Your task to perform on an android device: turn notification dots off Image 0: 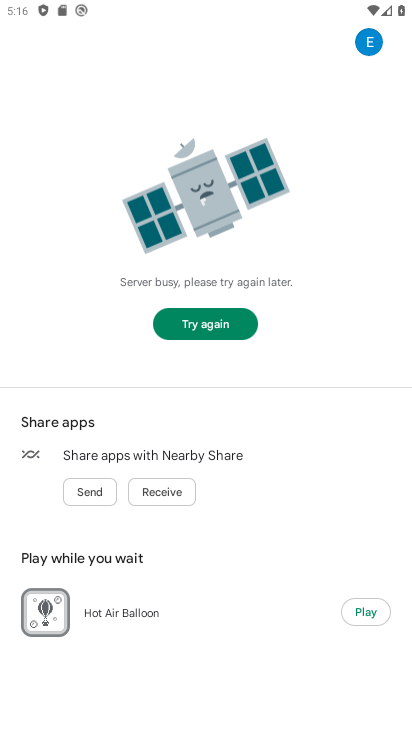
Step 0: press home button
Your task to perform on an android device: turn notification dots off Image 1: 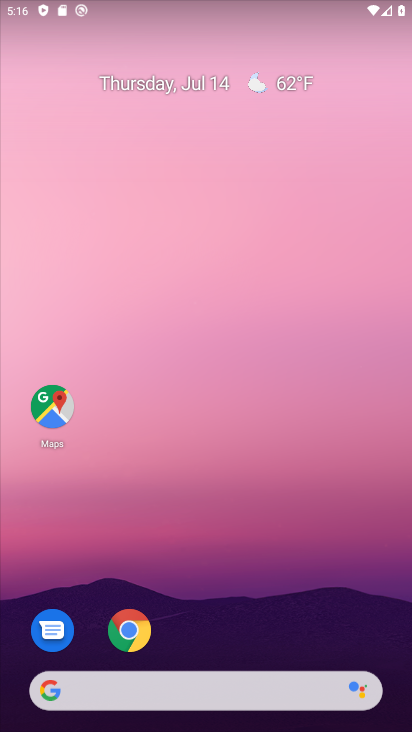
Step 1: drag from (207, 308) to (192, 193)
Your task to perform on an android device: turn notification dots off Image 2: 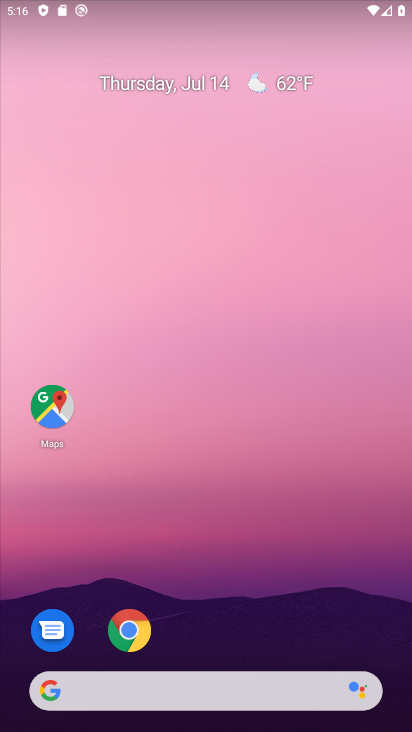
Step 2: drag from (197, 632) to (228, 178)
Your task to perform on an android device: turn notification dots off Image 3: 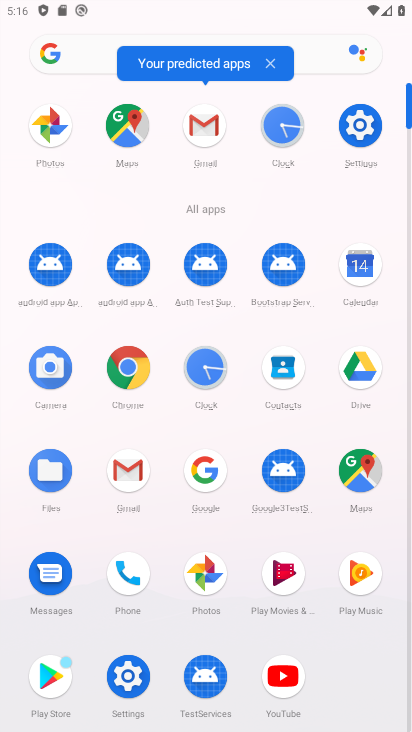
Step 3: click (365, 142)
Your task to perform on an android device: turn notification dots off Image 4: 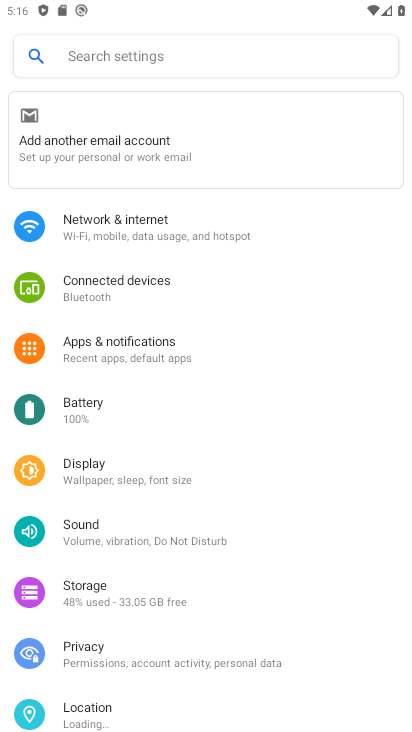
Step 4: click (136, 358)
Your task to perform on an android device: turn notification dots off Image 5: 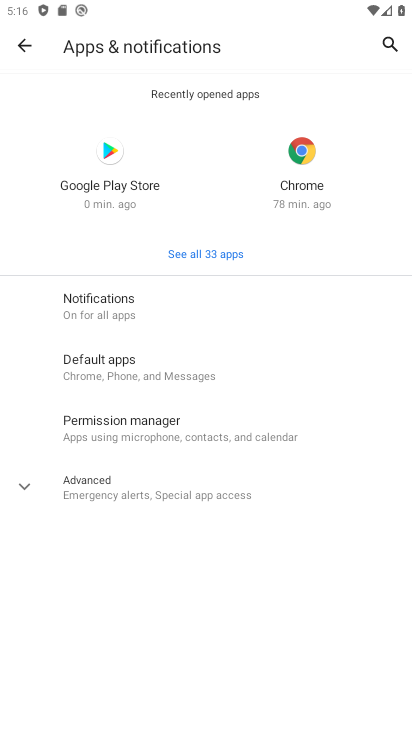
Step 5: click (150, 298)
Your task to perform on an android device: turn notification dots off Image 6: 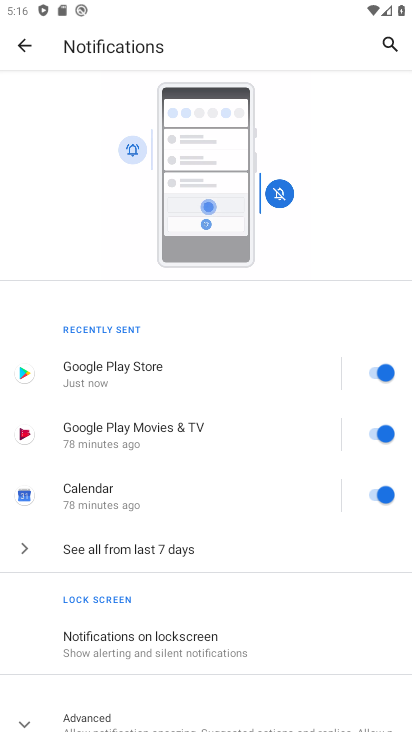
Step 6: drag from (230, 638) to (262, 48)
Your task to perform on an android device: turn notification dots off Image 7: 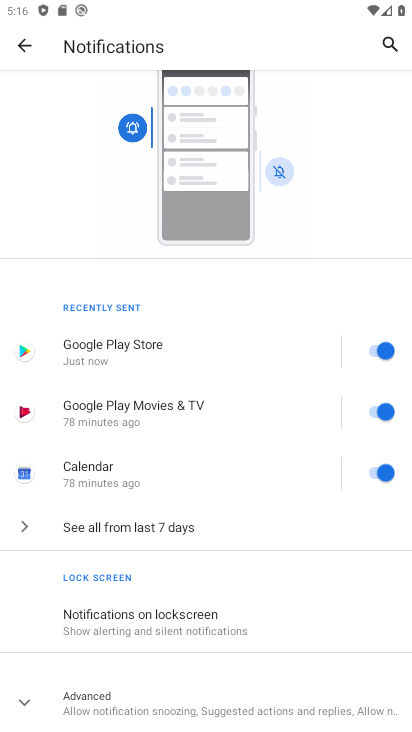
Step 7: drag from (71, 710) to (207, 100)
Your task to perform on an android device: turn notification dots off Image 8: 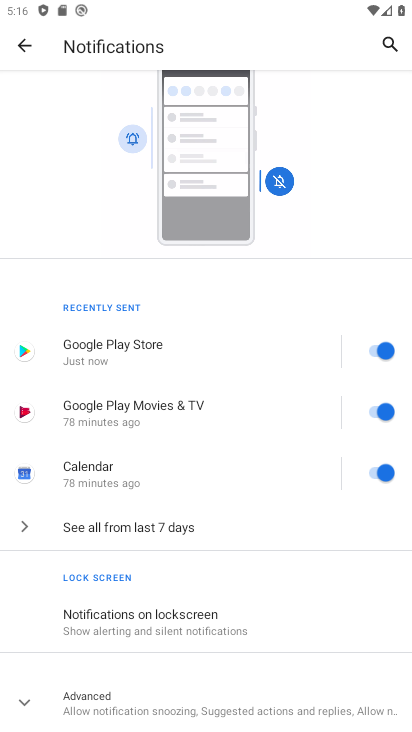
Step 8: click (121, 693)
Your task to perform on an android device: turn notification dots off Image 9: 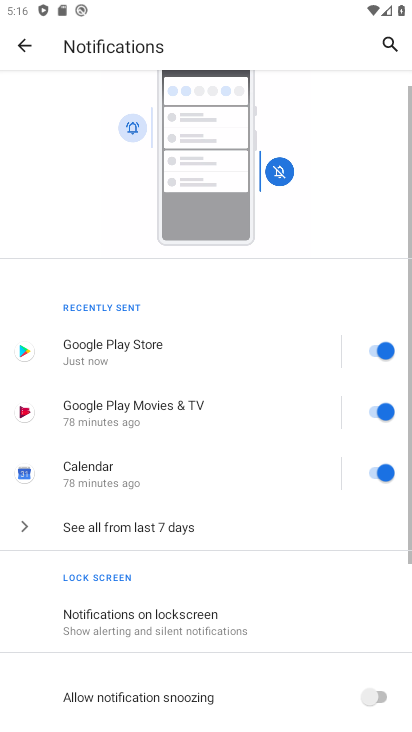
Step 9: drag from (121, 693) to (320, 62)
Your task to perform on an android device: turn notification dots off Image 10: 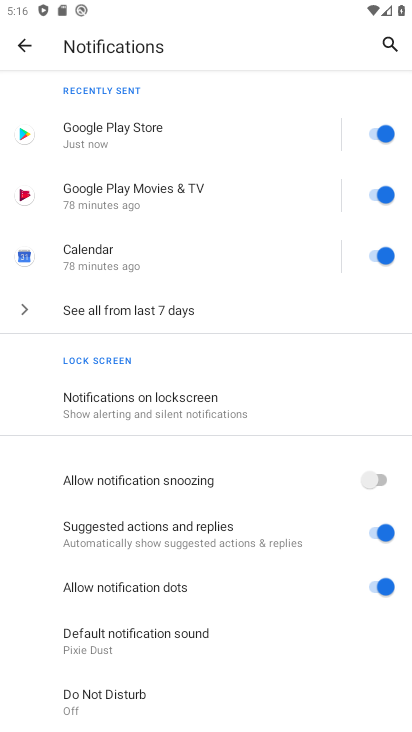
Step 10: click (379, 590)
Your task to perform on an android device: turn notification dots off Image 11: 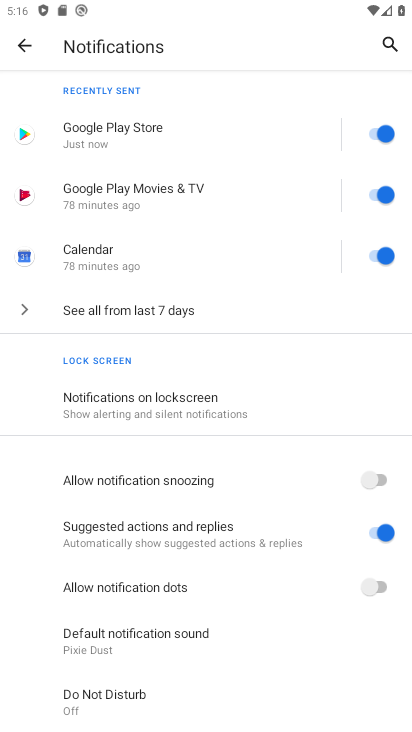
Step 11: task complete